Your task to perform on an android device: set the stopwatch Image 0: 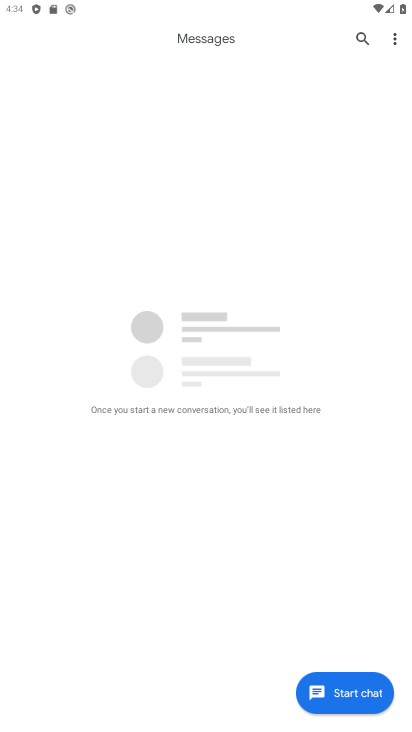
Step 0: press back button
Your task to perform on an android device: set the stopwatch Image 1: 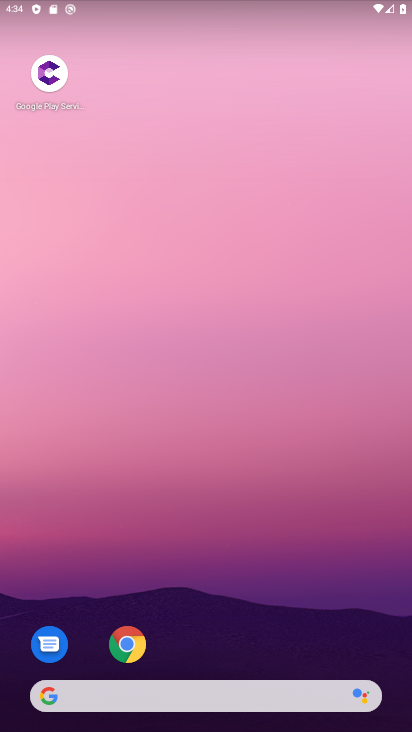
Step 1: drag from (216, 669) to (320, 239)
Your task to perform on an android device: set the stopwatch Image 2: 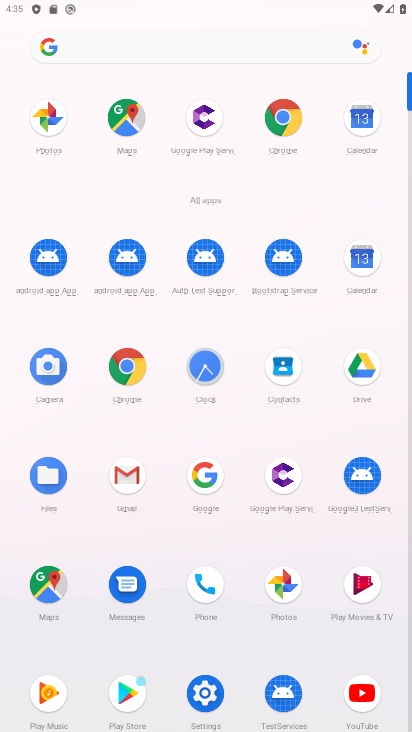
Step 2: click (218, 381)
Your task to perform on an android device: set the stopwatch Image 3: 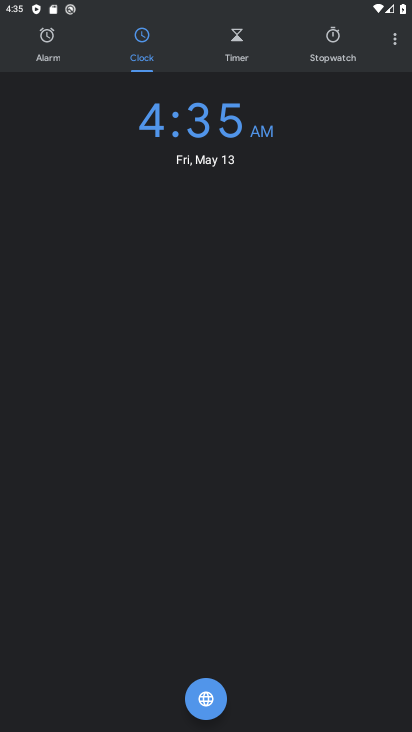
Step 3: click (328, 47)
Your task to perform on an android device: set the stopwatch Image 4: 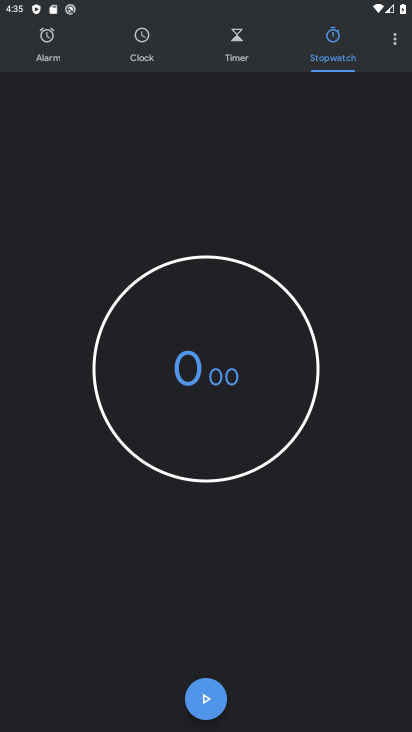
Step 4: click (214, 690)
Your task to perform on an android device: set the stopwatch Image 5: 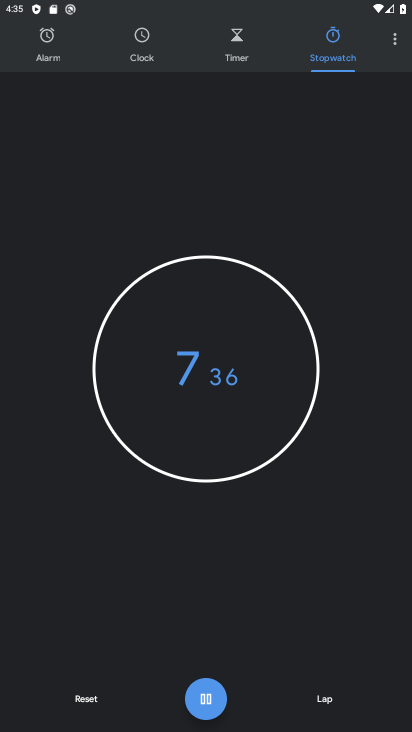
Step 5: task complete